Your task to perform on an android device: delete location history Image 0: 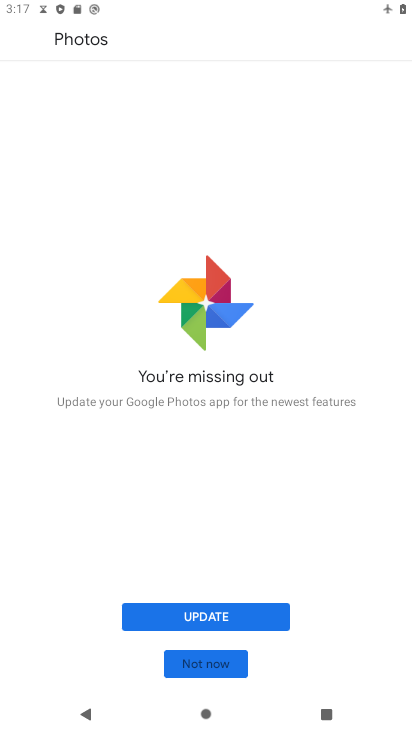
Step 0: press home button
Your task to perform on an android device: delete location history Image 1: 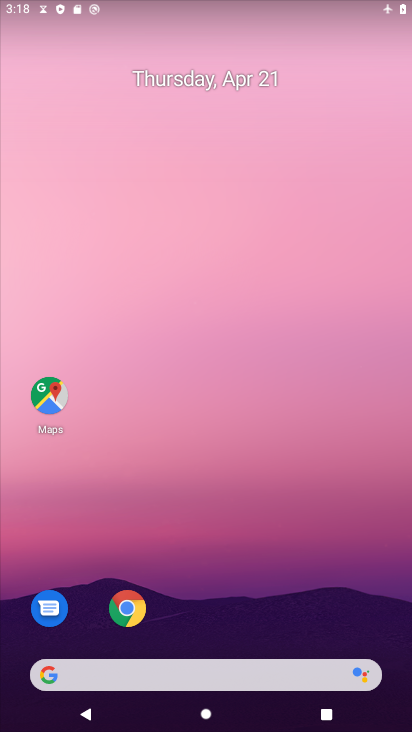
Step 1: drag from (301, 600) to (268, 135)
Your task to perform on an android device: delete location history Image 2: 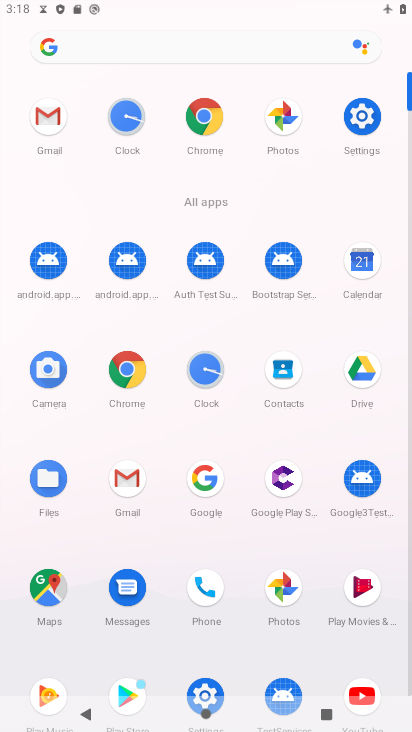
Step 2: click (41, 591)
Your task to perform on an android device: delete location history Image 3: 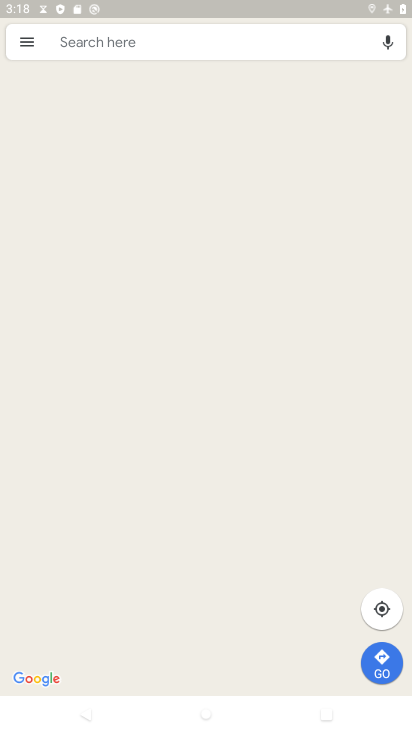
Step 3: click (30, 37)
Your task to perform on an android device: delete location history Image 4: 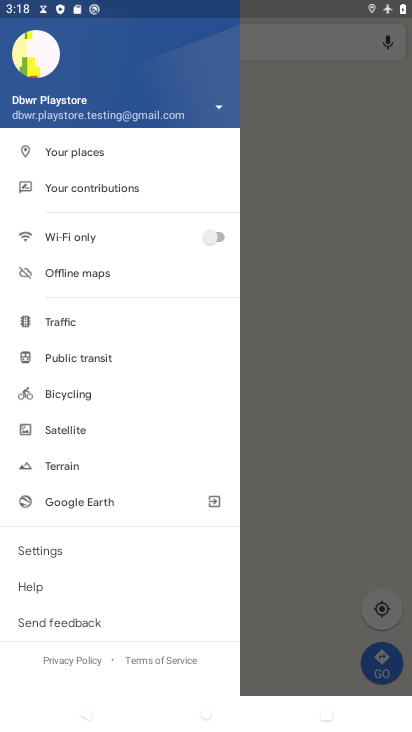
Step 4: task complete